Your task to perform on an android device: Clear the shopping cart on bestbuy. Search for "usb-a to usb-b" on bestbuy, select the first entry, and add it to the cart. Image 0: 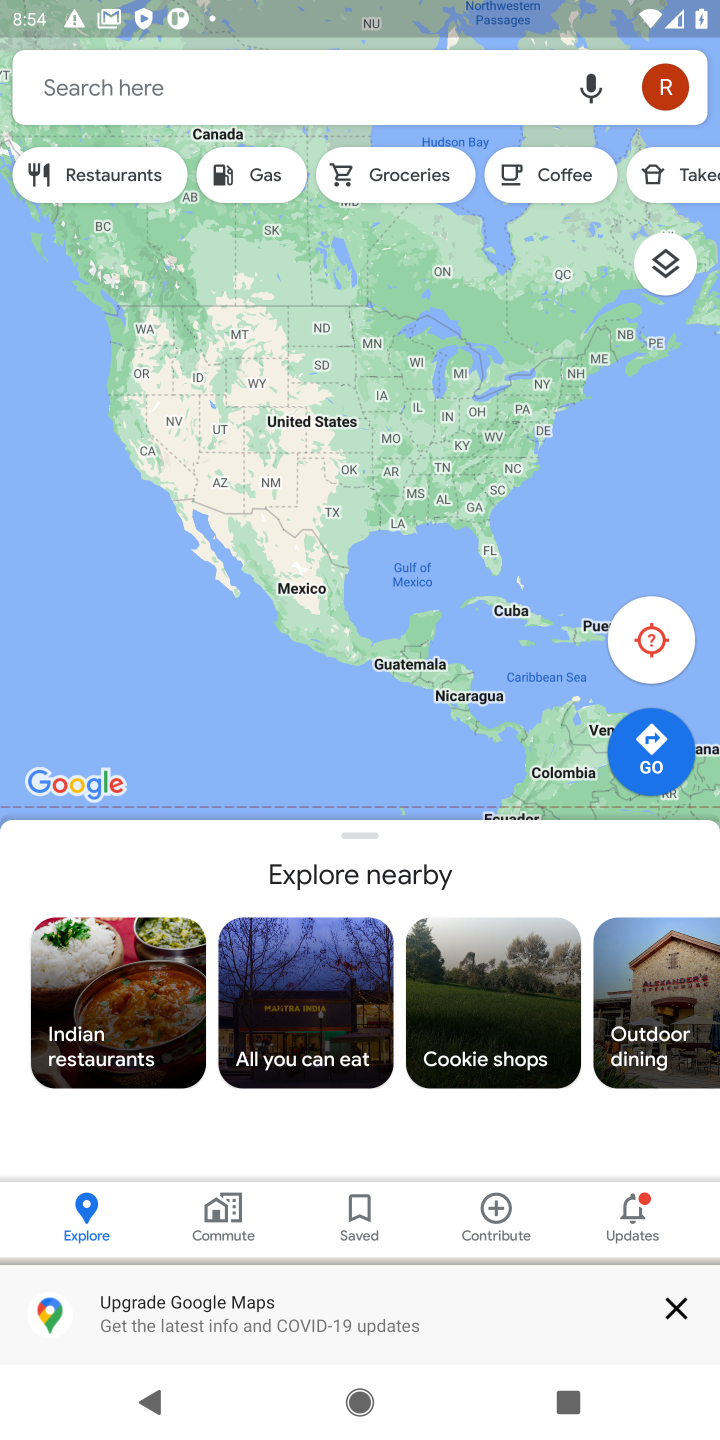
Step 0: press home button
Your task to perform on an android device: Clear the shopping cart on bestbuy. Search for "usb-a to usb-b" on bestbuy, select the first entry, and add it to the cart. Image 1: 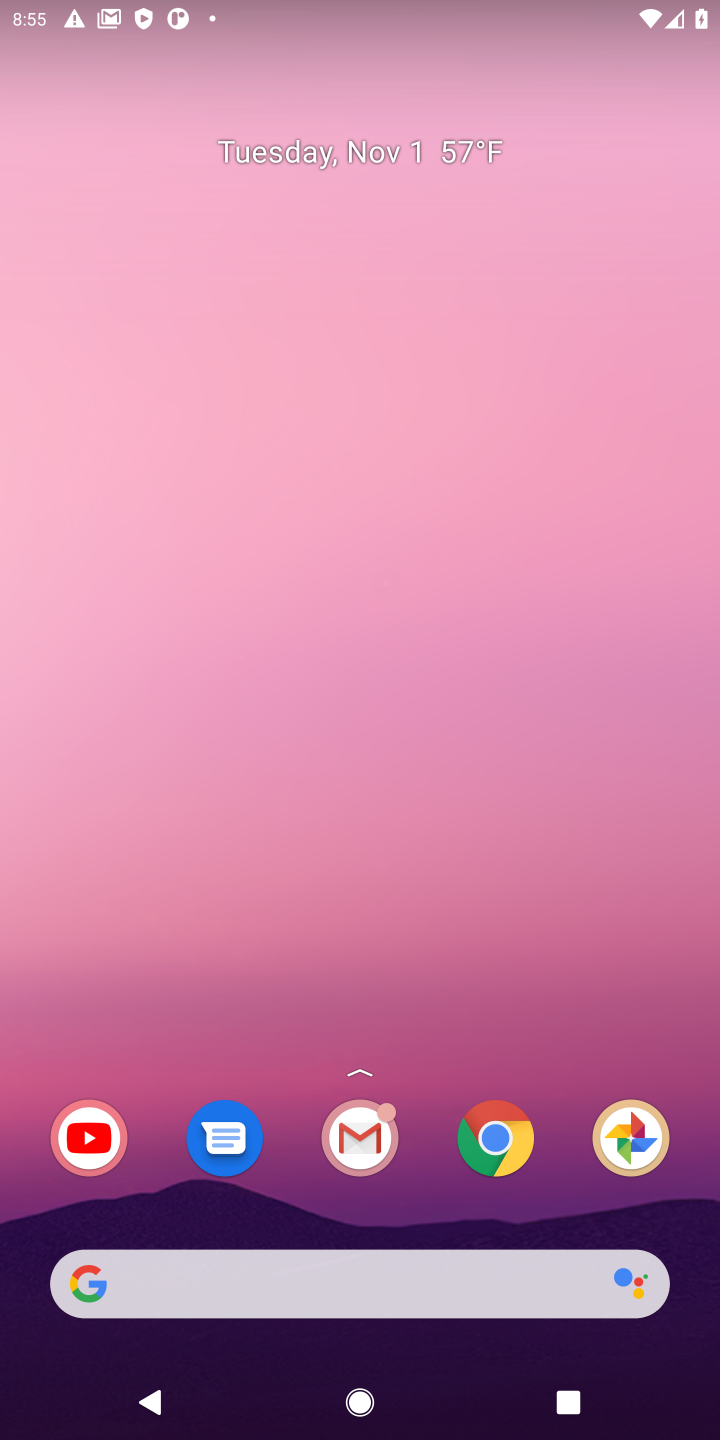
Step 1: click (486, 1152)
Your task to perform on an android device: Clear the shopping cart on bestbuy. Search for "usb-a to usb-b" on bestbuy, select the first entry, and add it to the cart. Image 2: 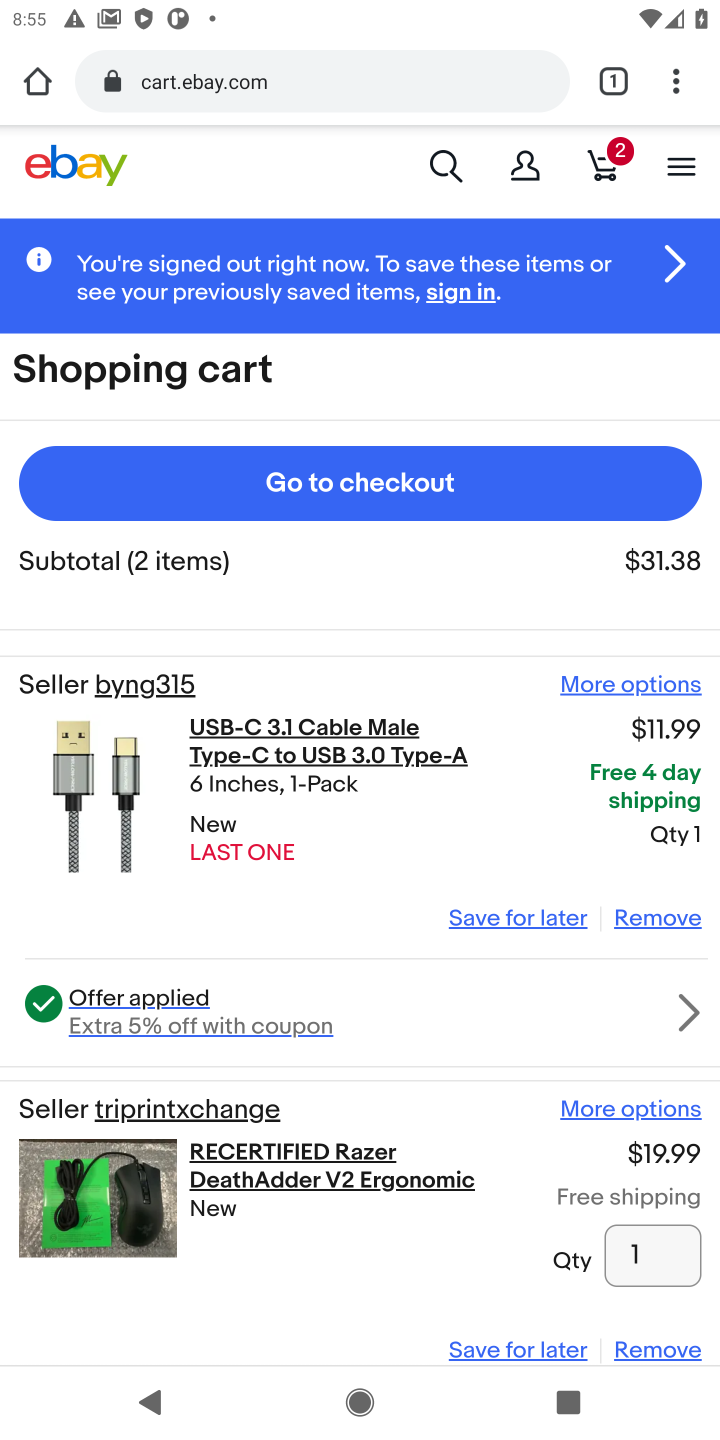
Step 2: click (226, 95)
Your task to perform on an android device: Clear the shopping cart on bestbuy. Search for "usb-a to usb-b" on bestbuy, select the first entry, and add it to the cart. Image 3: 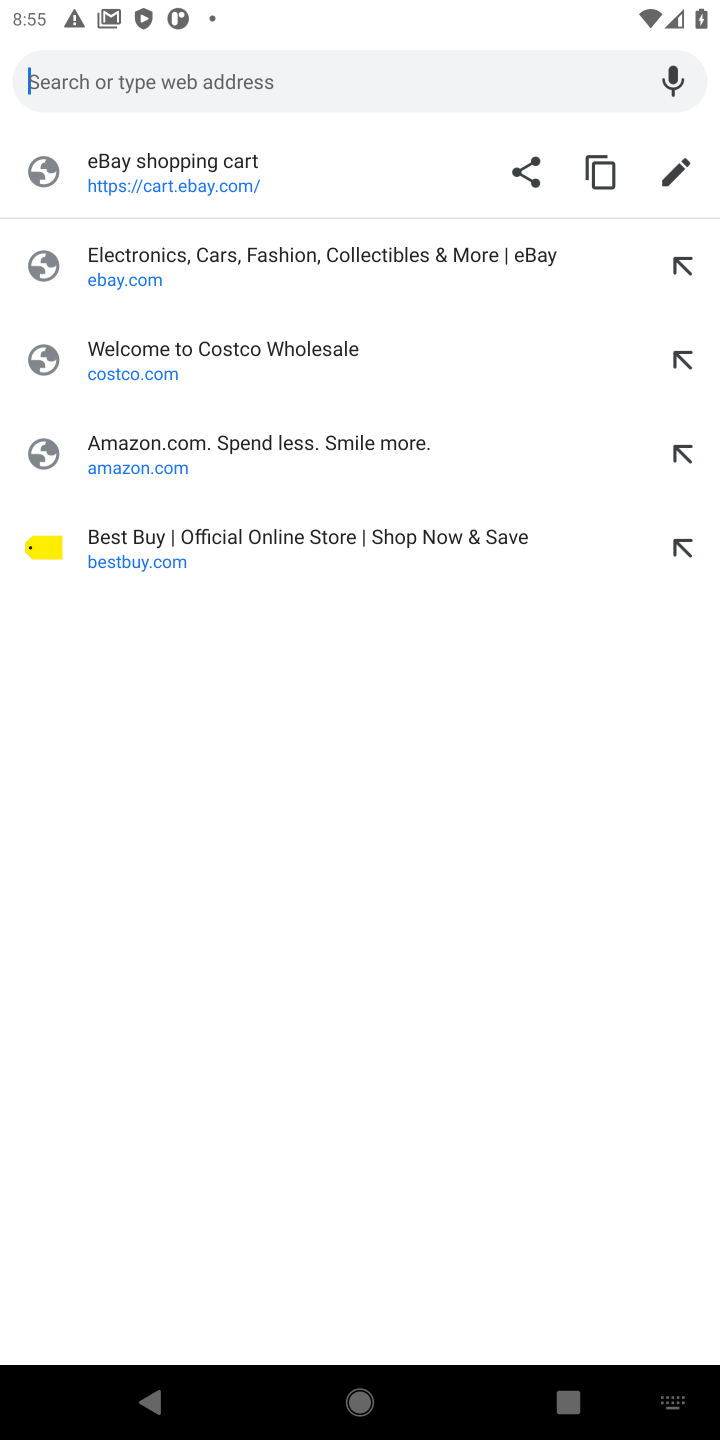
Step 3: click (138, 554)
Your task to perform on an android device: Clear the shopping cart on bestbuy. Search for "usb-a to usb-b" on bestbuy, select the first entry, and add it to the cart. Image 4: 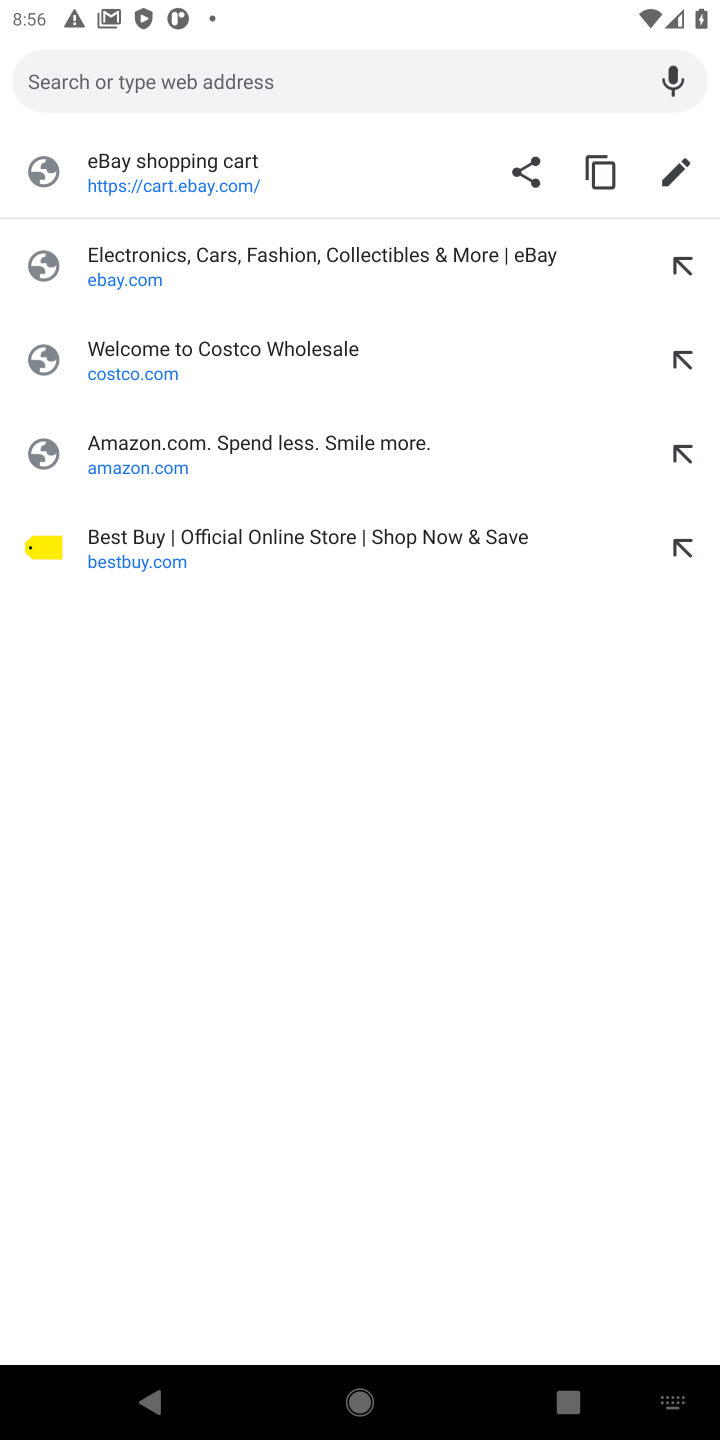
Step 4: click (121, 567)
Your task to perform on an android device: Clear the shopping cart on bestbuy. Search for "usb-a to usb-b" on bestbuy, select the first entry, and add it to the cart. Image 5: 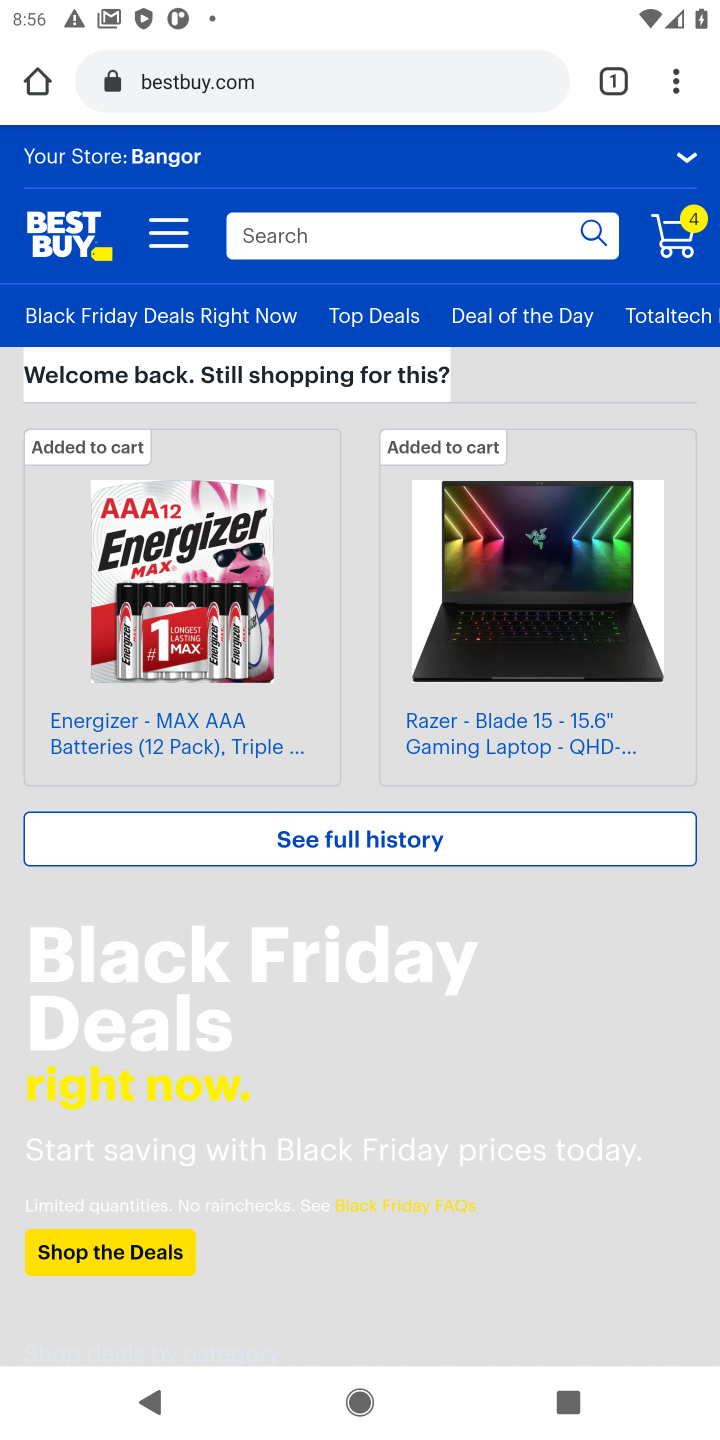
Step 5: click (675, 238)
Your task to perform on an android device: Clear the shopping cart on bestbuy. Search for "usb-a to usb-b" on bestbuy, select the first entry, and add it to the cart. Image 6: 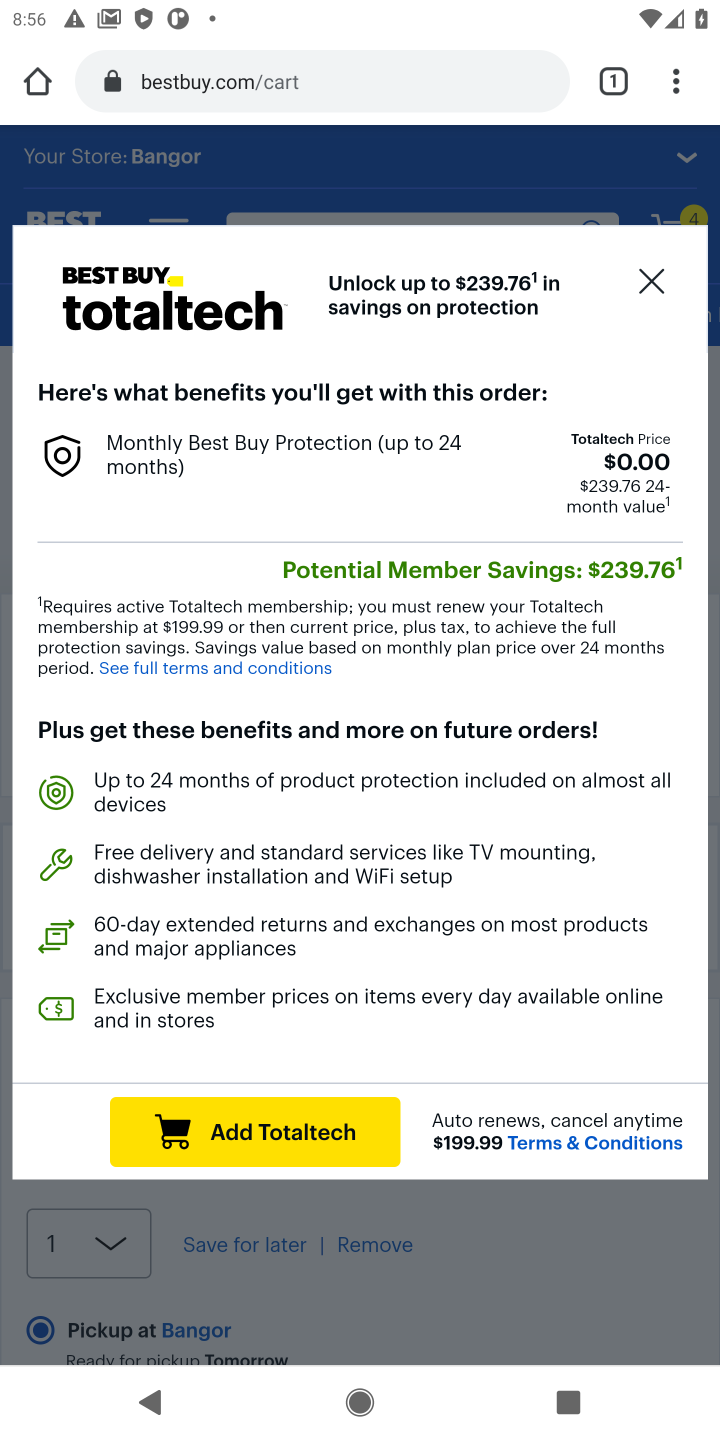
Step 6: click (647, 271)
Your task to perform on an android device: Clear the shopping cart on bestbuy. Search for "usb-a to usb-b" on bestbuy, select the first entry, and add it to the cart. Image 7: 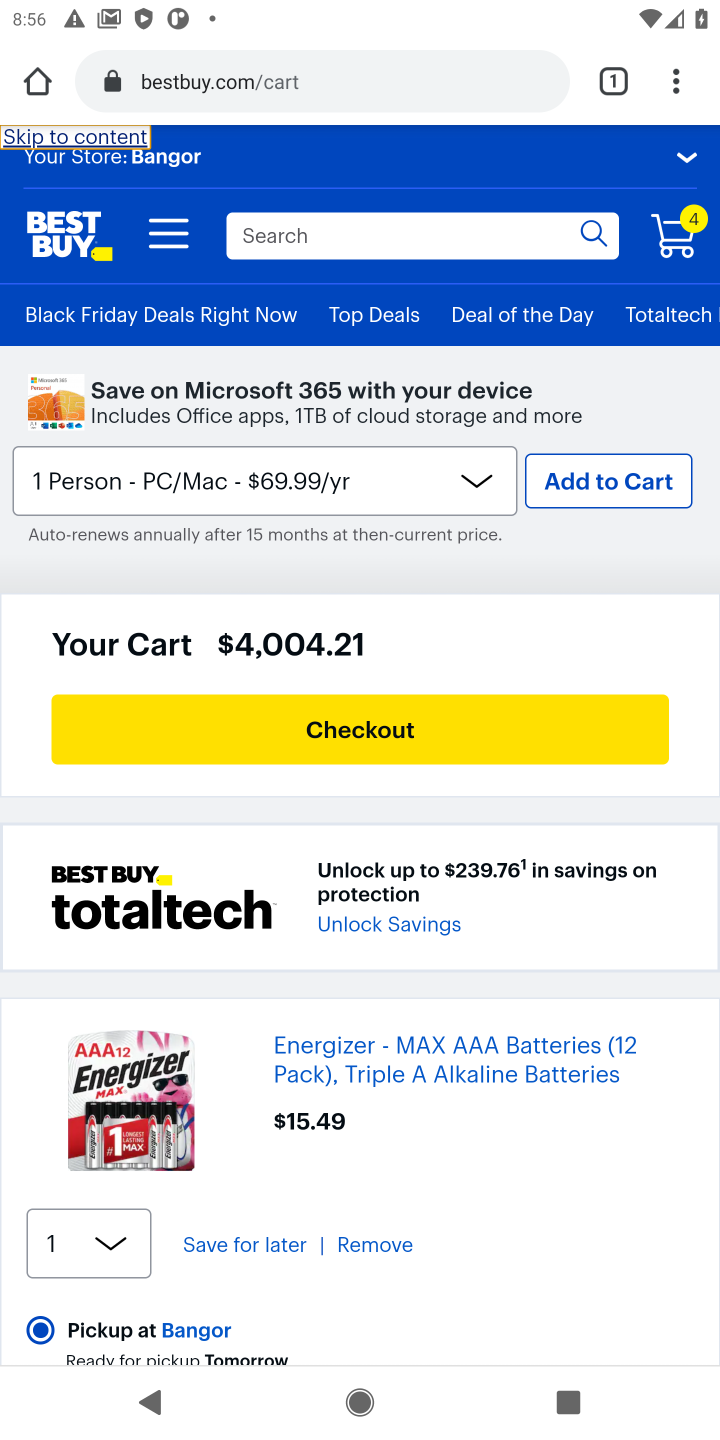
Step 7: drag from (334, 995) to (385, 616)
Your task to perform on an android device: Clear the shopping cart on bestbuy. Search for "usb-a to usb-b" on bestbuy, select the first entry, and add it to the cart. Image 8: 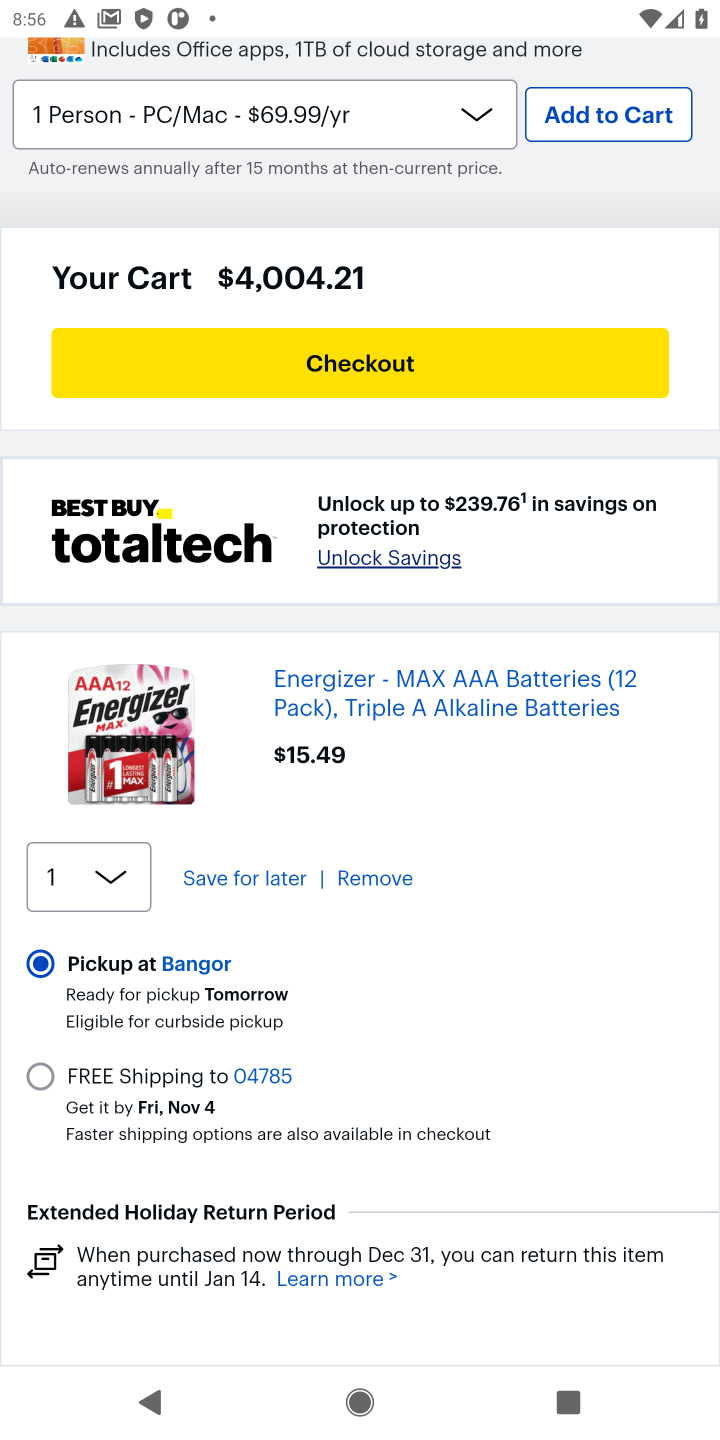
Step 8: click (359, 879)
Your task to perform on an android device: Clear the shopping cart on bestbuy. Search for "usb-a to usb-b" on bestbuy, select the first entry, and add it to the cart. Image 9: 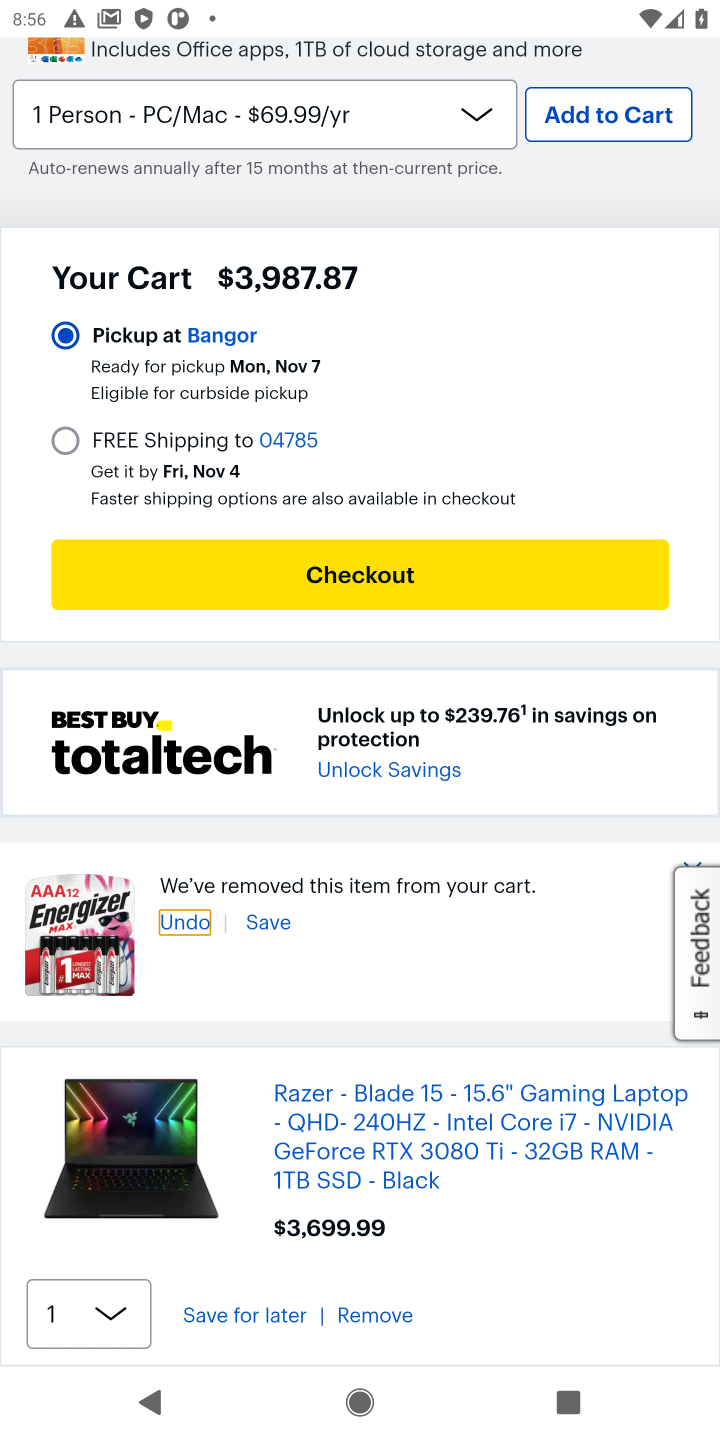
Step 9: drag from (356, 970) to (412, 577)
Your task to perform on an android device: Clear the shopping cart on bestbuy. Search for "usb-a to usb-b" on bestbuy, select the first entry, and add it to the cart. Image 10: 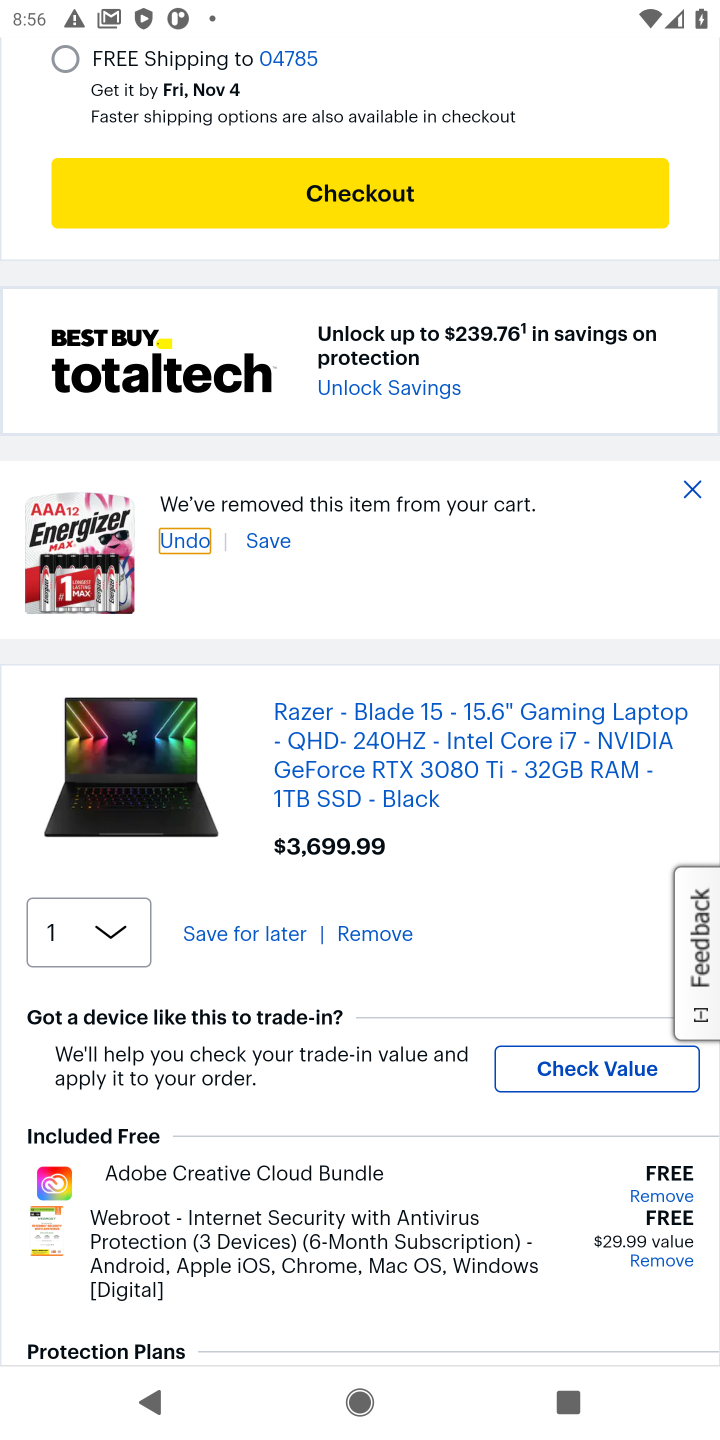
Step 10: click (366, 941)
Your task to perform on an android device: Clear the shopping cart on bestbuy. Search for "usb-a to usb-b" on bestbuy, select the first entry, and add it to the cart. Image 11: 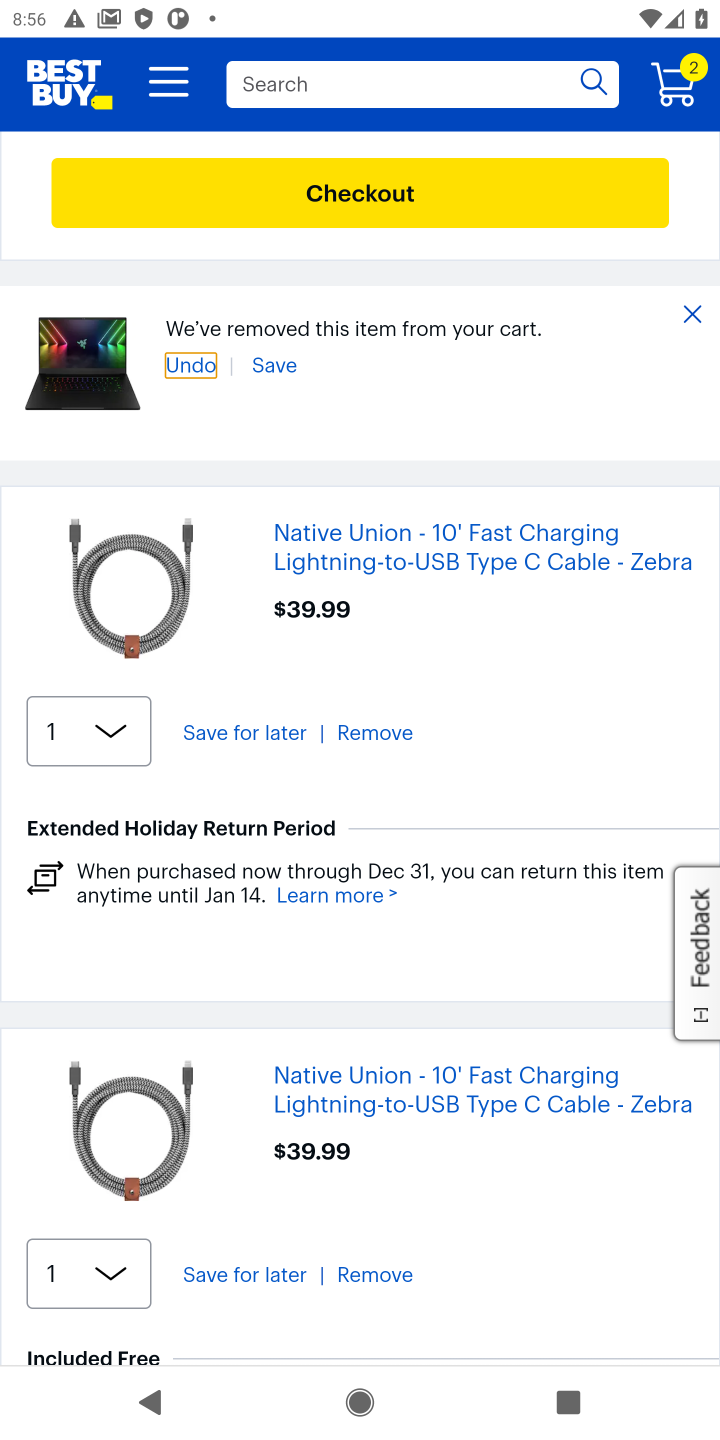
Step 11: click (371, 1271)
Your task to perform on an android device: Clear the shopping cart on bestbuy. Search for "usb-a to usb-b" on bestbuy, select the first entry, and add it to the cart. Image 12: 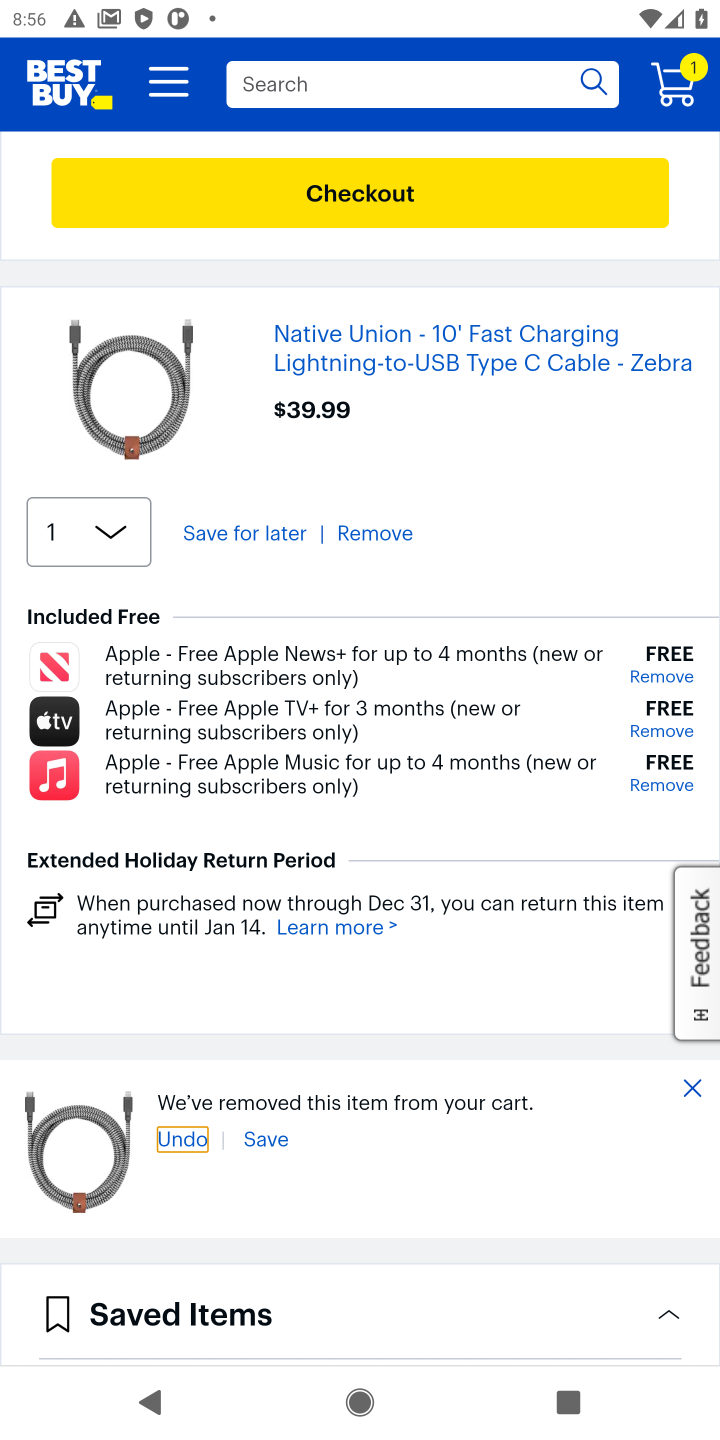
Step 12: click (390, 514)
Your task to perform on an android device: Clear the shopping cart on bestbuy. Search for "usb-a to usb-b" on bestbuy, select the first entry, and add it to the cart. Image 13: 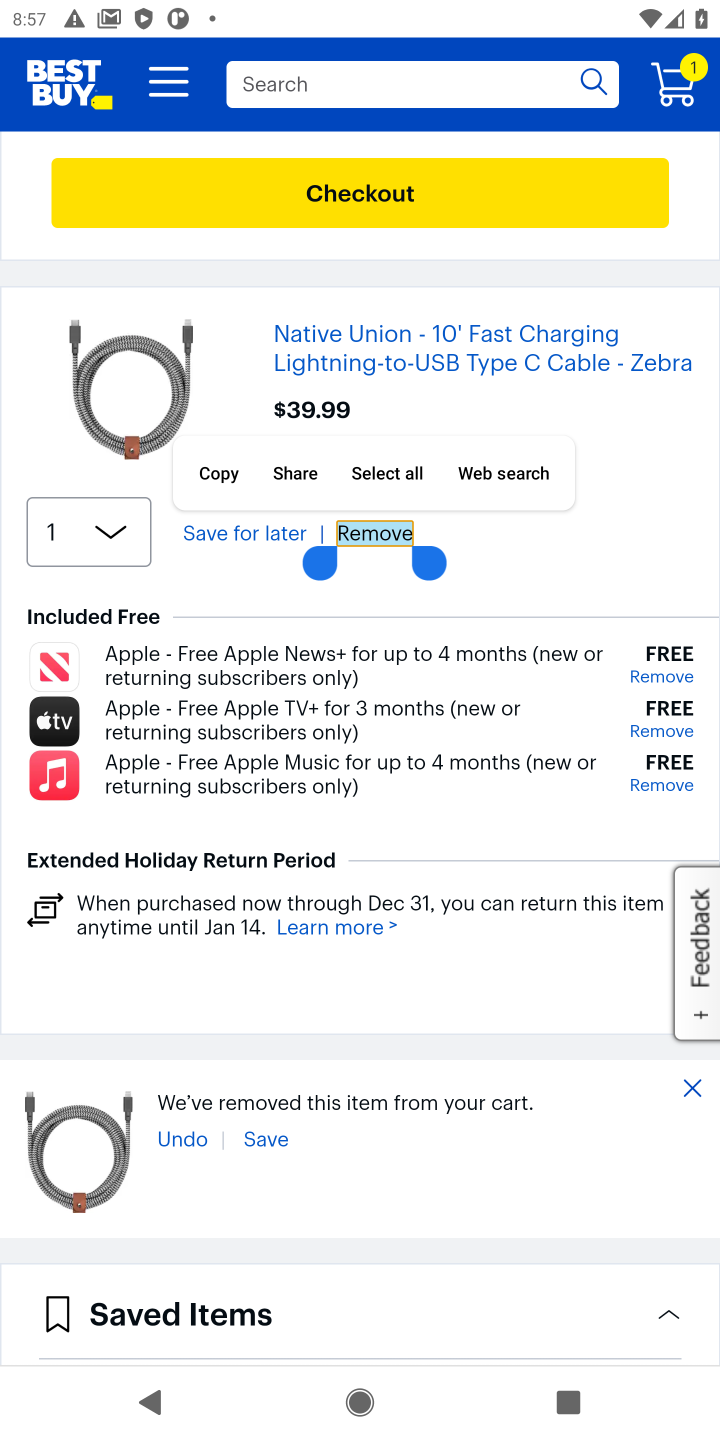
Step 13: click (386, 530)
Your task to perform on an android device: Clear the shopping cart on bestbuy. Search for "usb-a to usb-b" on bestbuy, select the first entry, and add it to the cart. Image 14: 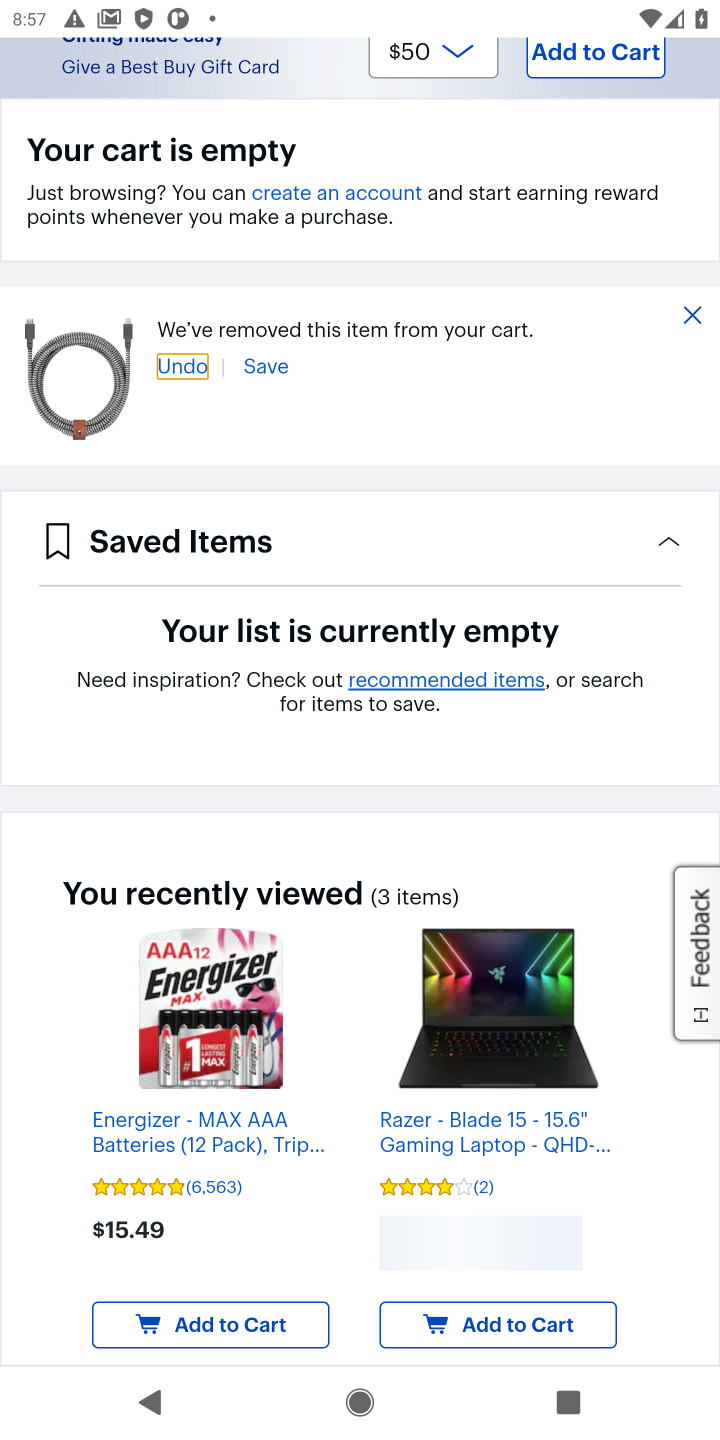
Step 14: drag from (360, 566) to (320, 1137)
Your task to perform on an android device: Clear the shopping cart on bestbuy. Search for "usb-a to usb-b" on bestbuy, select the first entry, and add it to the cart. Image 15: 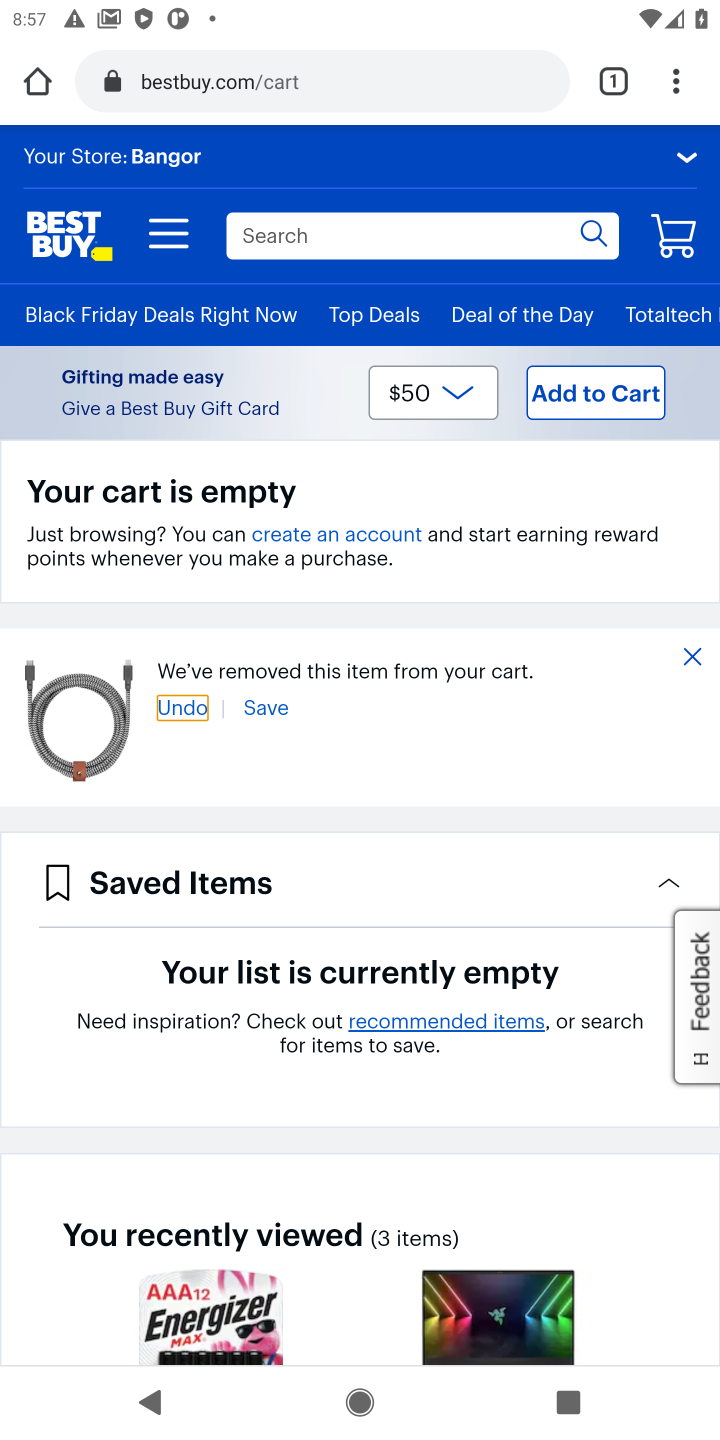
Step 15: click (426, 225)
Your task to perform on an android device: Clear the shopping cart on bestbuy. Search for "usb-a to usb-b" on bestbuy, select the first entry, and add it to the cart. Image 16: 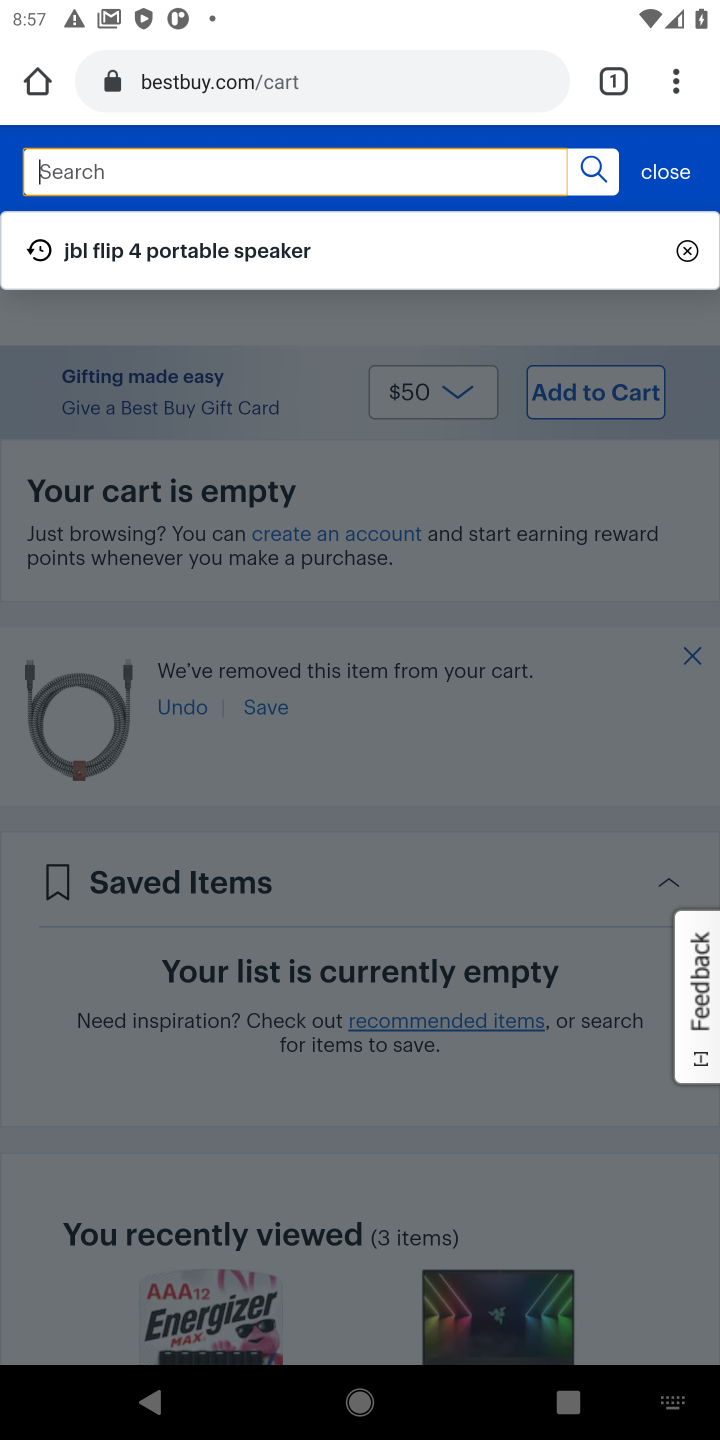
Step 16: type "usb-a to usb-b"
Your task to perform on an android device: Clear the shopping cart on bestbuy. Search for "usb-a to usb-b" on bestbuy, select the first entry, and add it to the cart. Image 17: 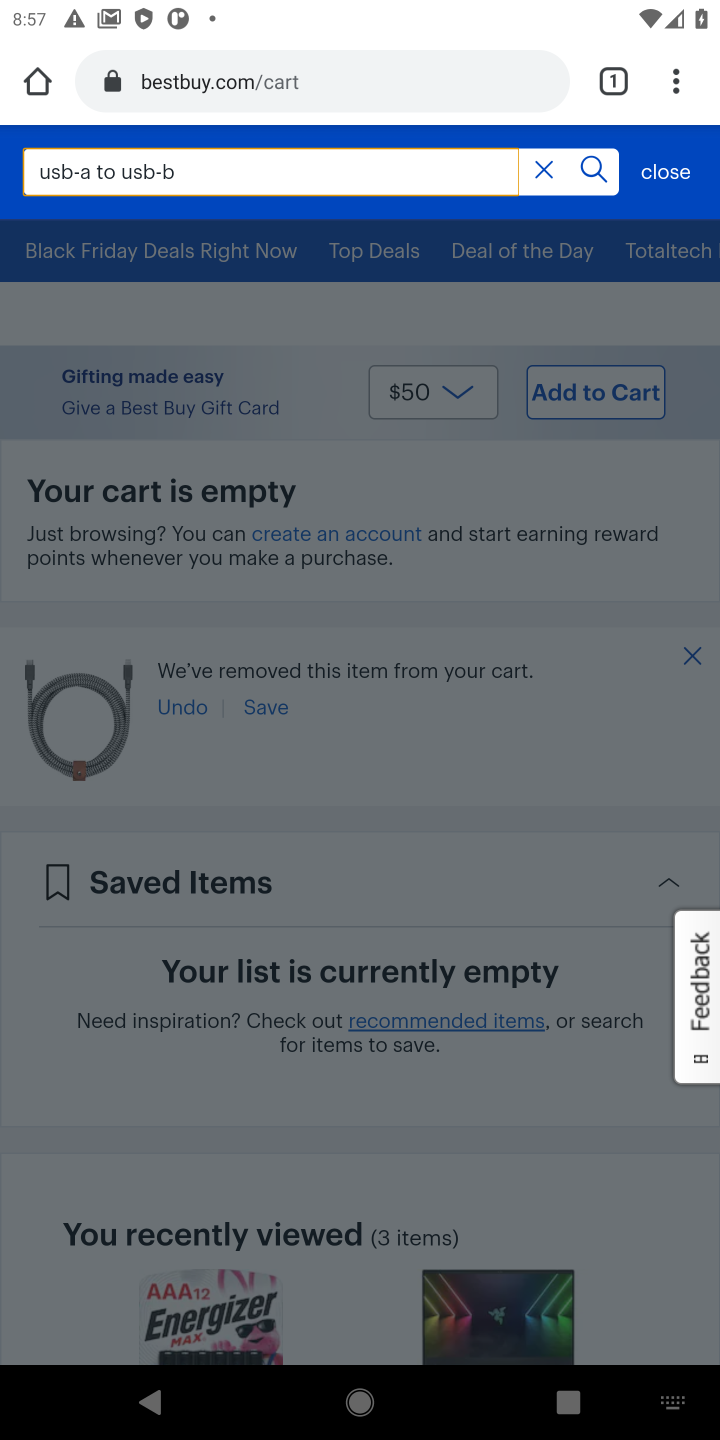
Step 17: click (584, 167)
Your task to perform on an android device: Clear the shopping cart on bestbuy. Search for "usb-a to usb-b" on bestbuy, select the first entry, and add it to the cart. Image 18: 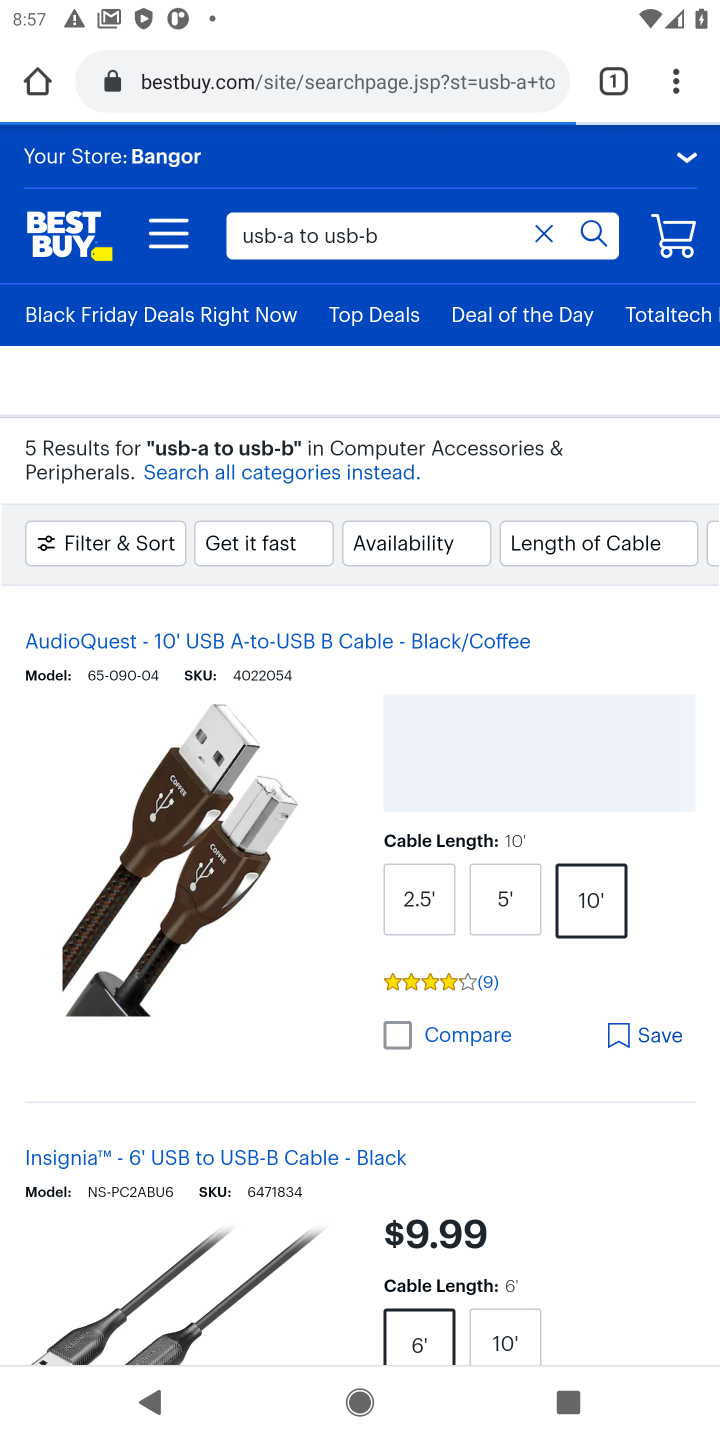
Step 18: click (143, 873)
Your task to perform on an android device: Clear the shopping cart on bestbuy. Search for "usb-a to usb-b" on bestbuy, select the first entry, and add it to the cart. Image 19: 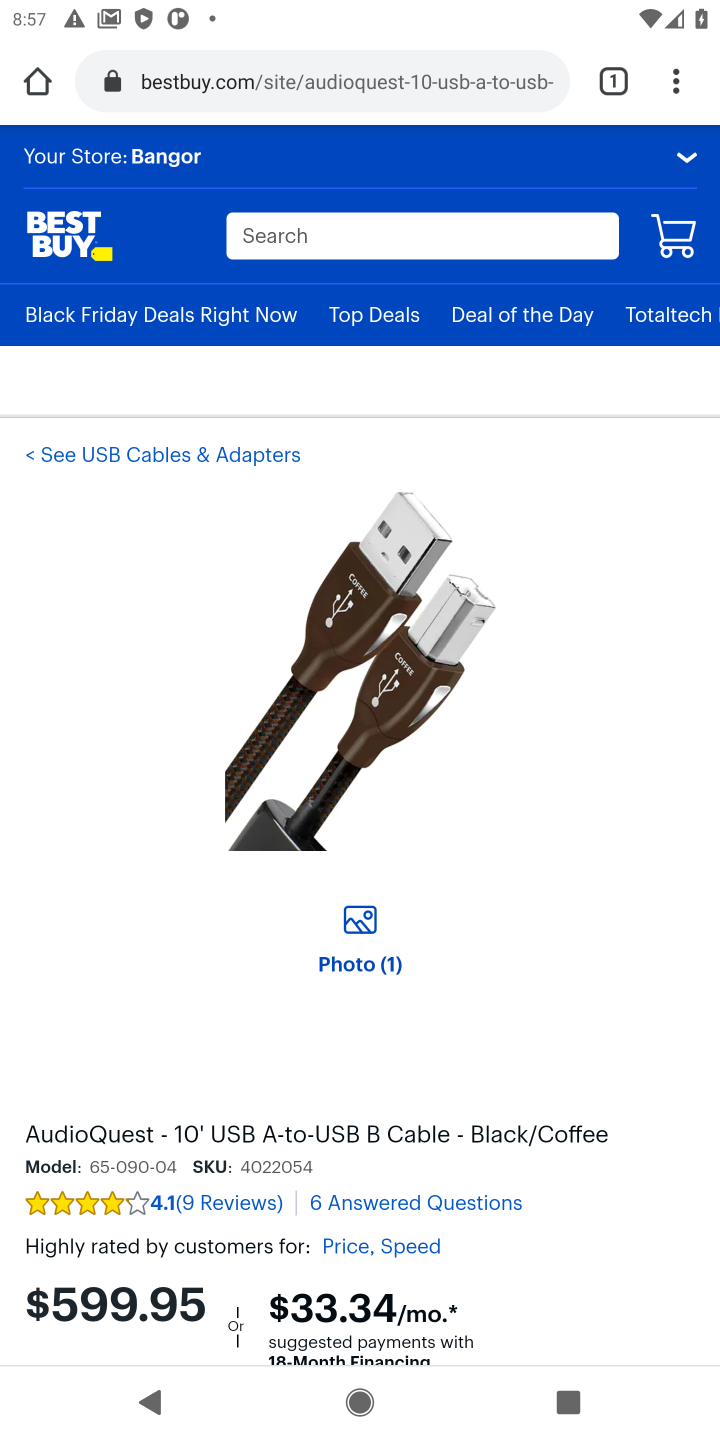
Step 19: drag from (335, 1093) to (361, 569)
Your task to perform on an android device: Clear the shopping cart on bestbuy. Search for "usb-a to usb-b" on bestbuy, select the first entry, and add it to the cart. Image 20: 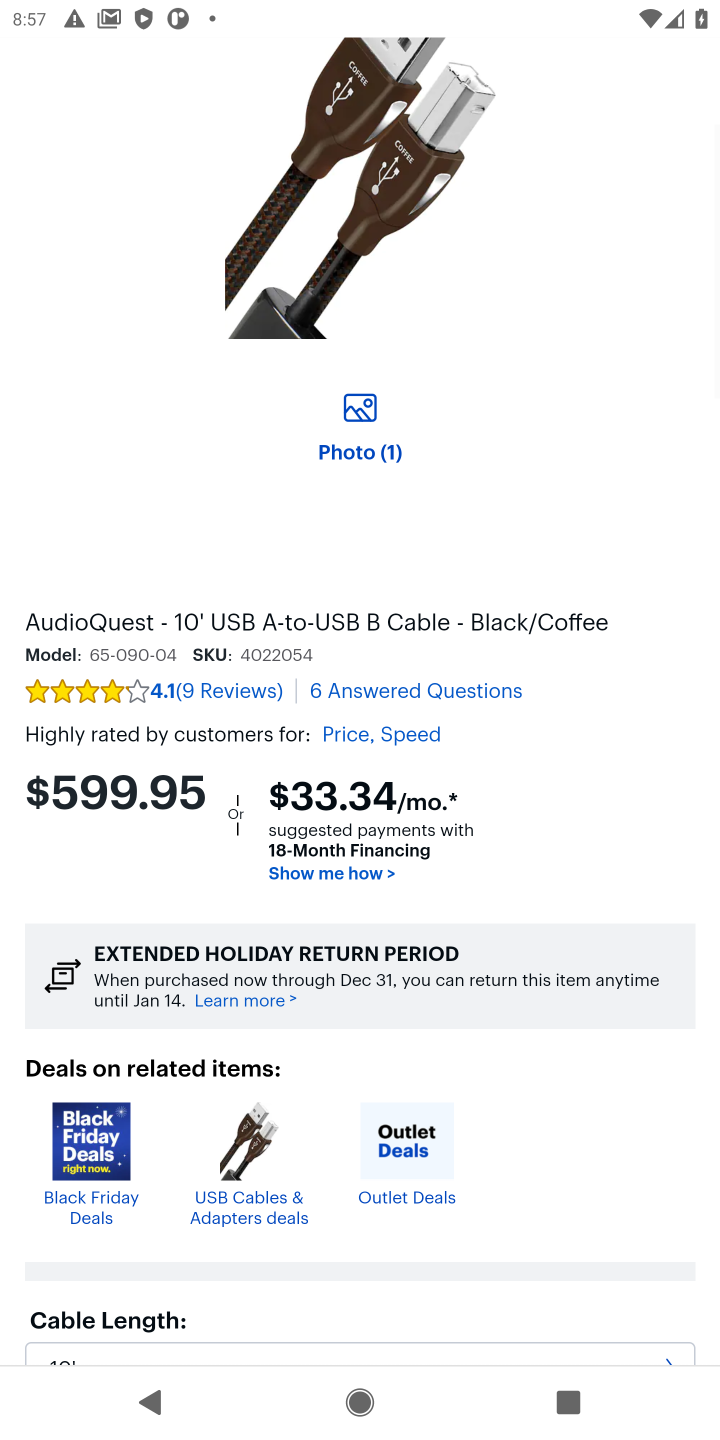
Step 20: drag from (359, 1032) to (348, 358)
Your task to perform on an android device: Clear the shopping cart on bestbuy. Search for "usb-a to usb-b" on bestbuy, select the first entry, and add it to the cart. Image 21: 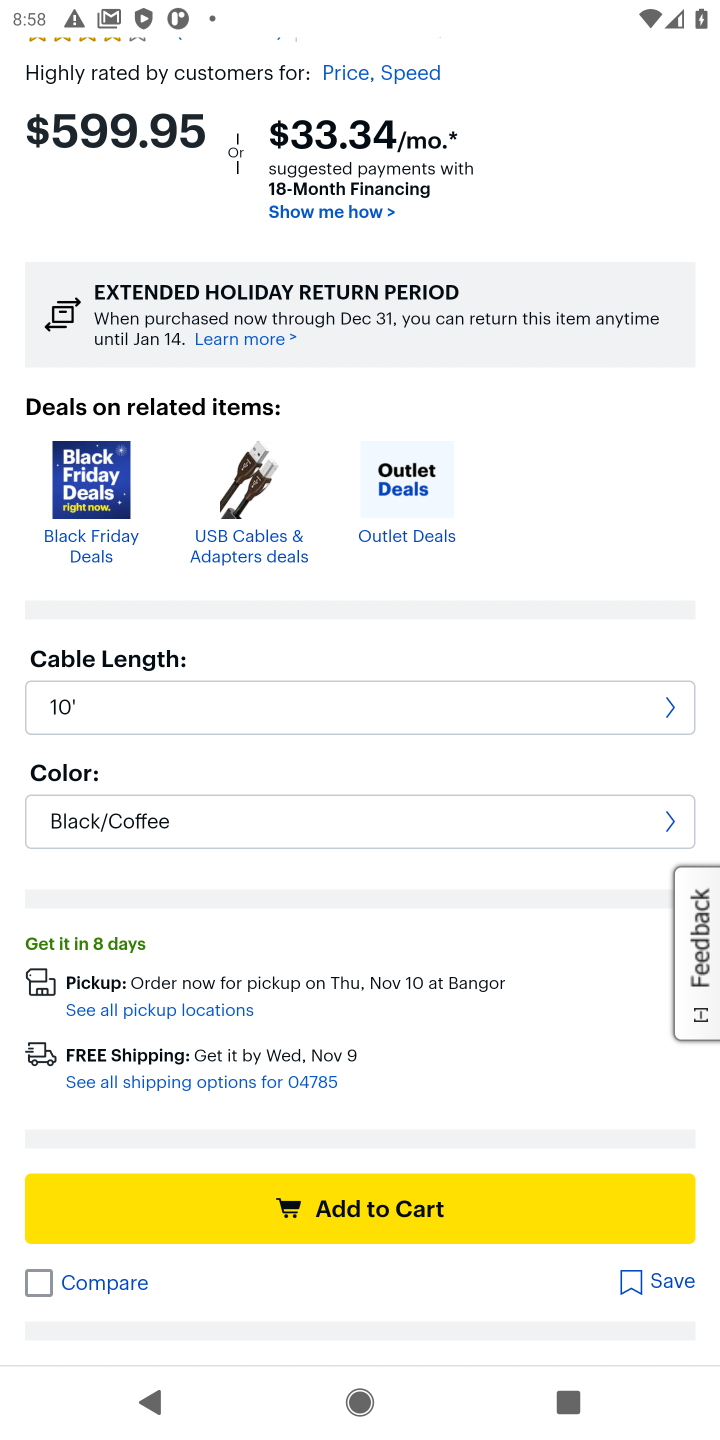
Step 21: click (337, 1195)
Your task to perform on an android device: Clear the shopping cart on bestbuy. Search for "usb-a to usb-b" on bestbuy, select the first entry, and add it to the cart. Image 22: 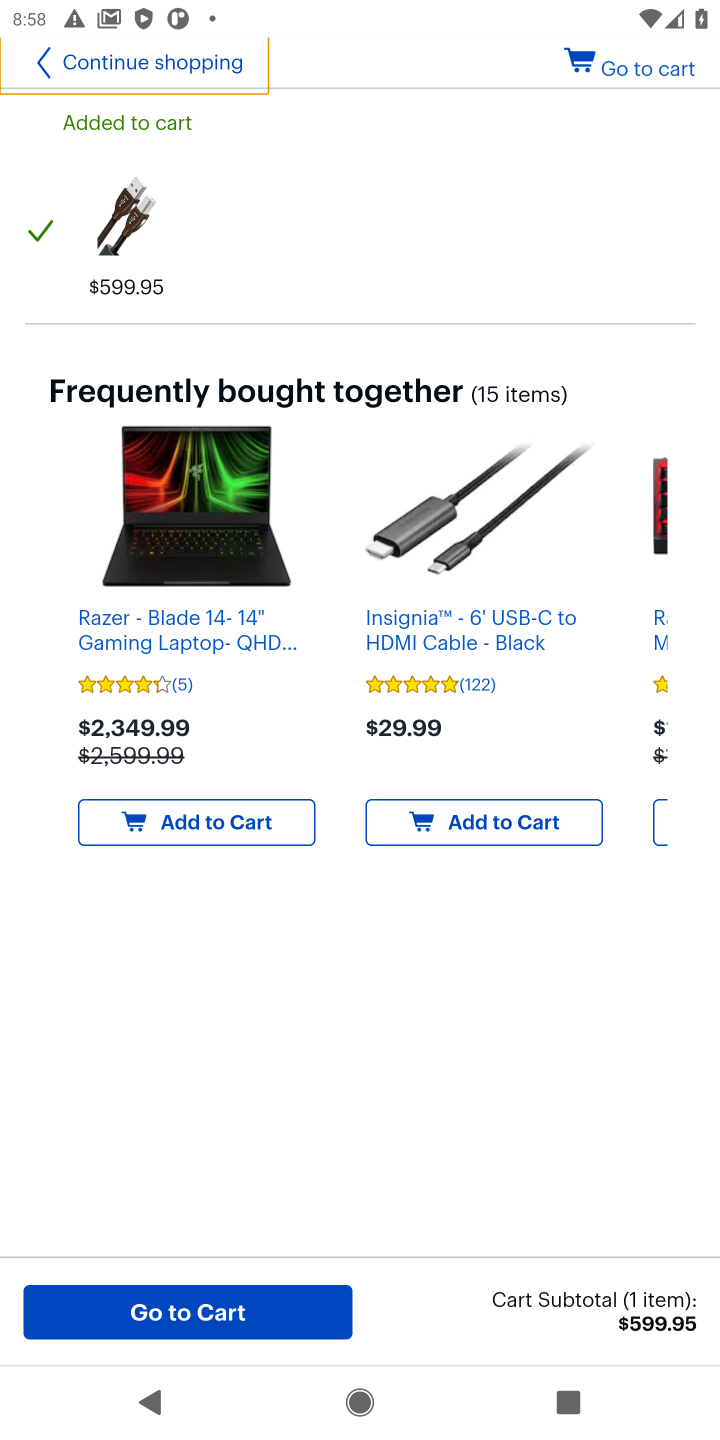
Step 22: task complete